Your task to perform on an android device: Open Google Image 0: 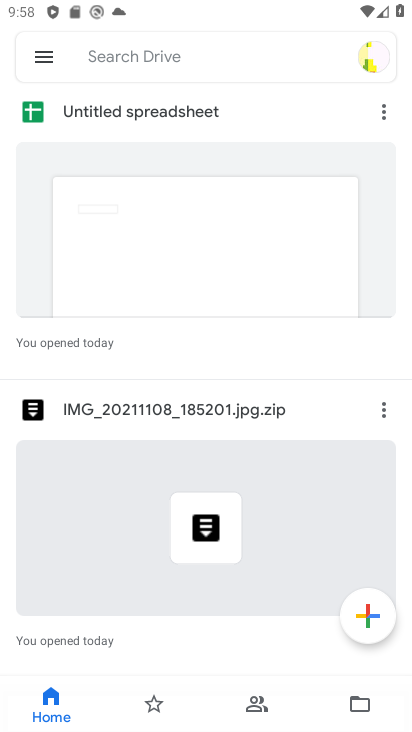
Step 0: press home button
Your task to perform on an android device: Open Google Image 1: 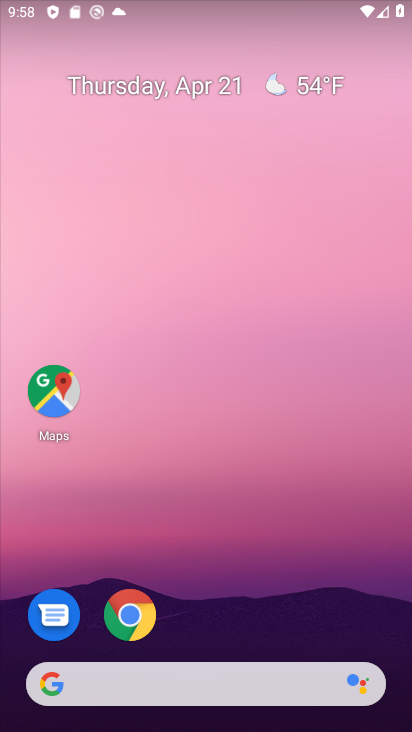
Step 1: drag from (278, 627) to (251, 5)
Your task to perform on an android device: Open Google Image 2: 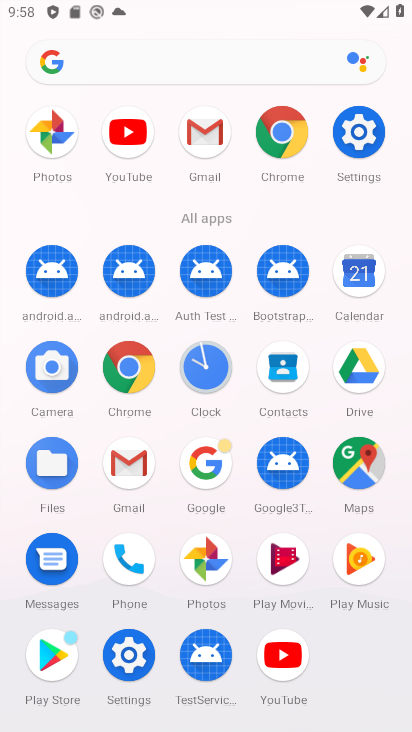
Step 2: click (205, 460)
Your task to perform on an android device: Open Google Image 3: 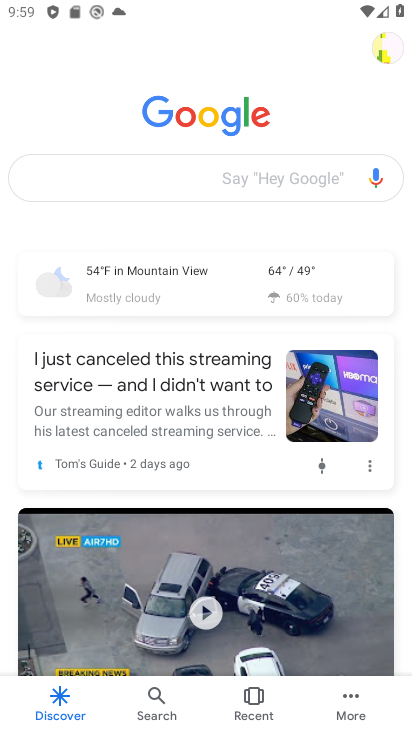
Step 3: task complete